Your task to perform on an android device: toggle notification dots Image 0: 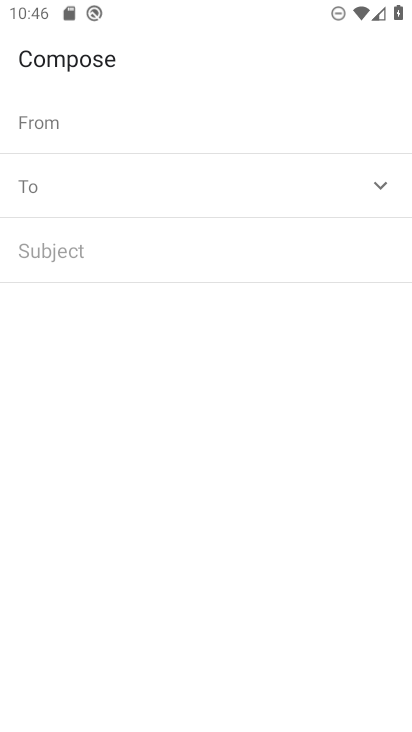
Step 0: drag from (343, 623) to (348, 204)
Your task to perform on an android device: toggle notification dots Image 1: 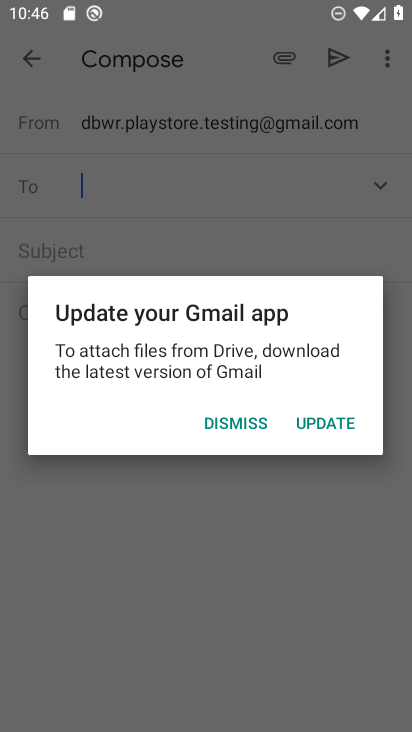
Step 1: press home button
Your task to perform on an android device: toggle notification dots Image 2: 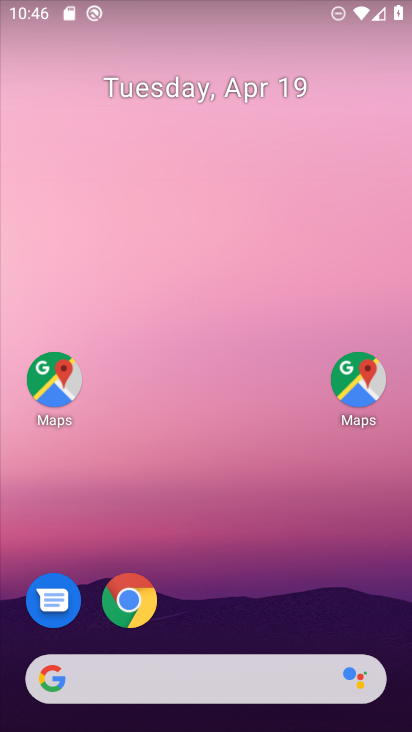
Step 2: drag from (319, 640) to (396, 44)
Your task to perform on an android device: toggle notification dots Image 3: 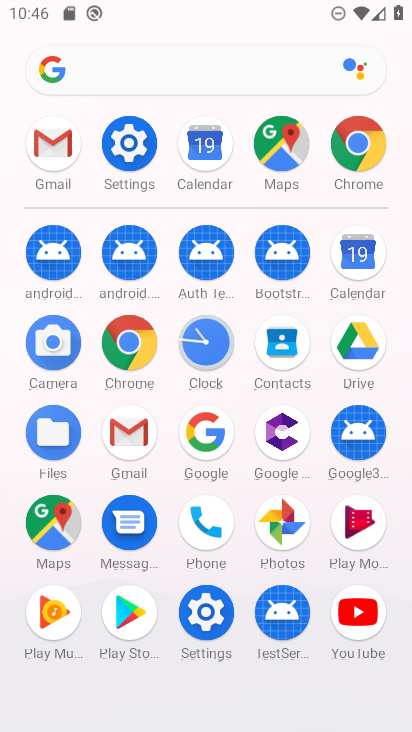
Step 3: click (126, 137)
Your task to perform on an android device: toggle notification dots Image 4: 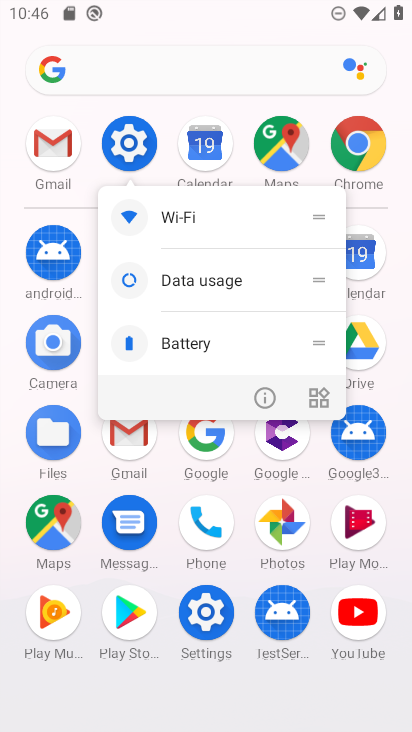
Step 4: click (217, 624)
Your task to perform on an android device: toggle notification dots Image 5: 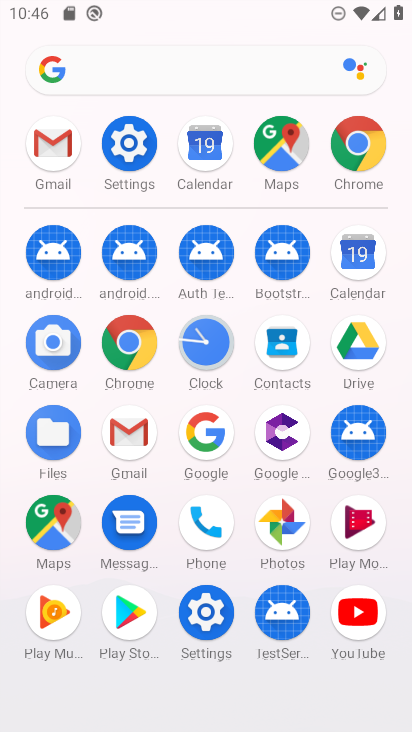
Step 5: click (200, 607)
Your task to perform on an android device: toggle notification dots Image 6: 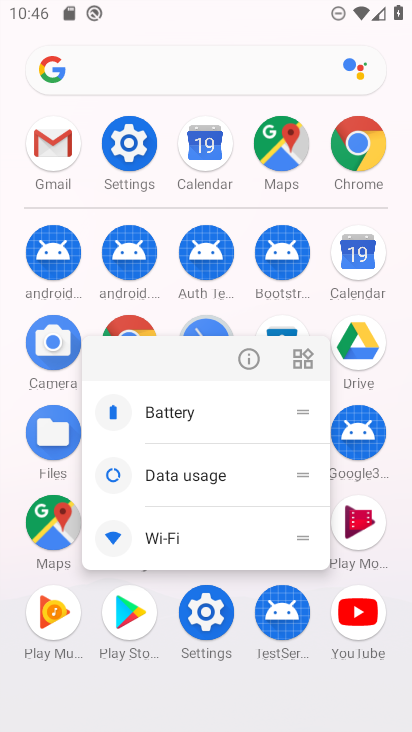
Step 6: click (200, 607)
Your task to perform on an android device: toggle notification dots Image 7: 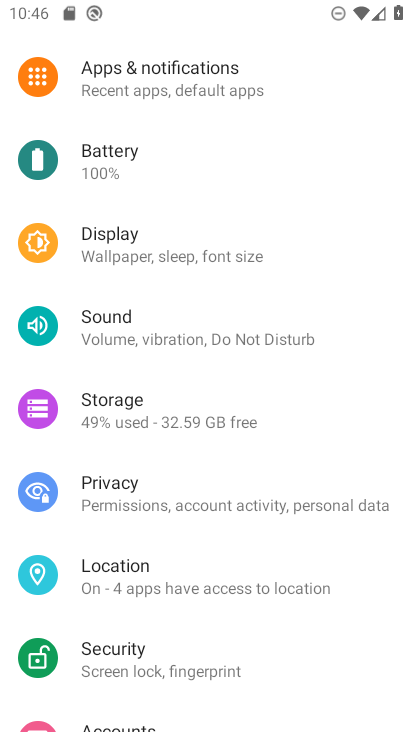
Step 7: click (152, 72)
Your task to perform on an android device: toggle notification dots Image 8: 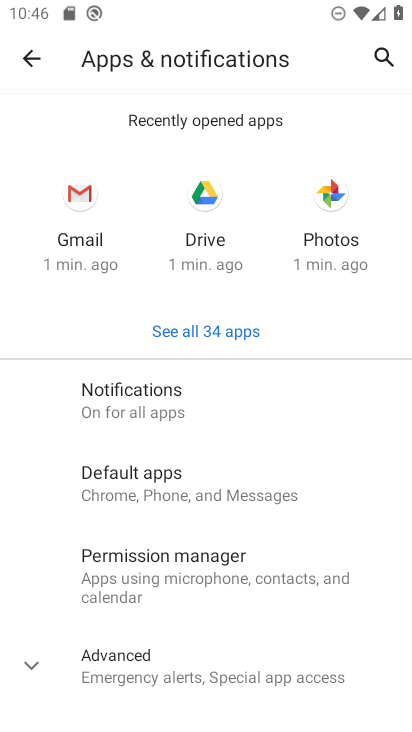
Step 8: click (181, 665)
Your task to perform on an android device: toggle notification dots Image 9: 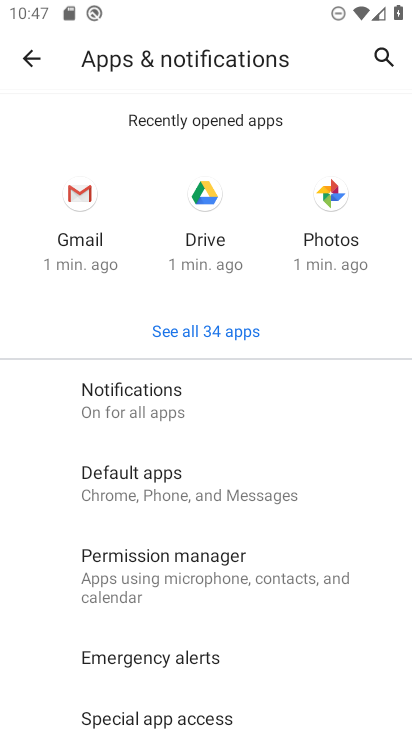
Step 9: click (223, 392)
Your task to perform on an android device: toggle notification dots Image 10: 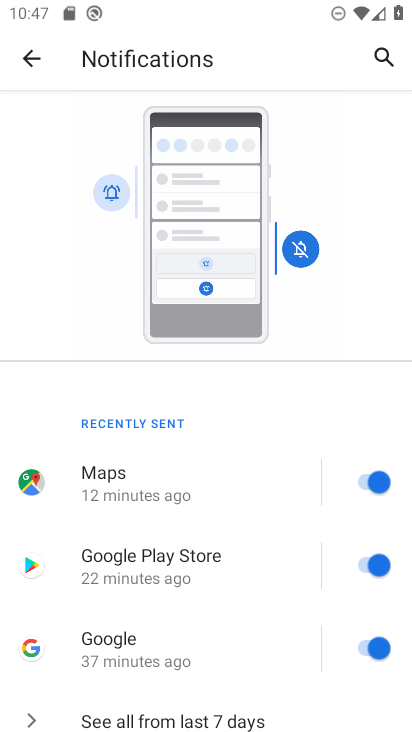
Step 10: click (214, 403)
Your task to perform on an android device: toggle notification dots Image 11: 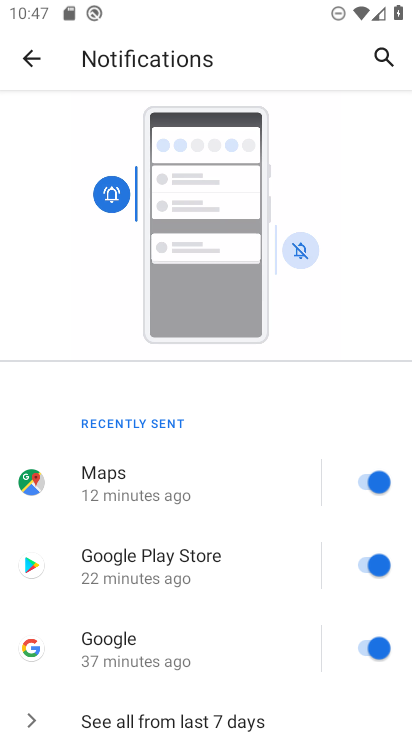
Step 11: drag from (277, 693) to (330, 217)
Your task to perform on an android device: toggle notification dots Image 12: 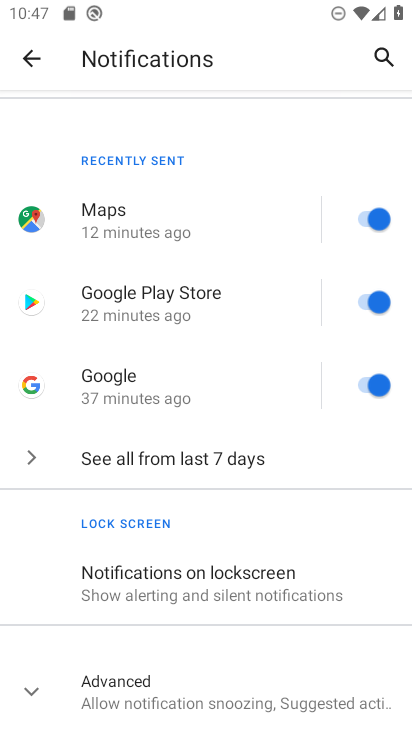
Step 12: click (294, 693)
Your task to perform on an android device: toggle notification dots Image 13: 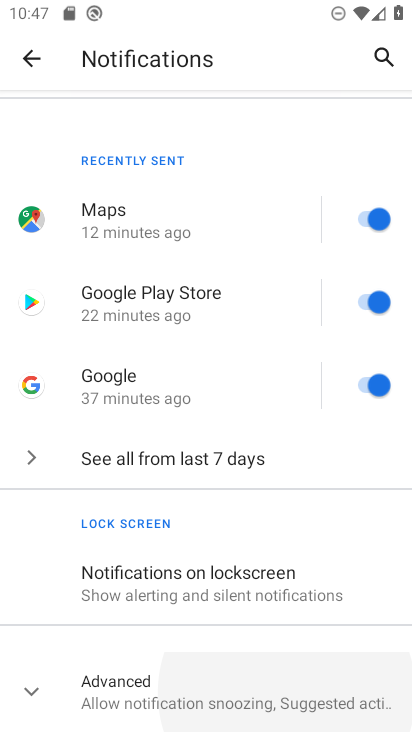
Step 13: click (294, 693)
Your task to perform on an android device: toggle notification dots Image 14: 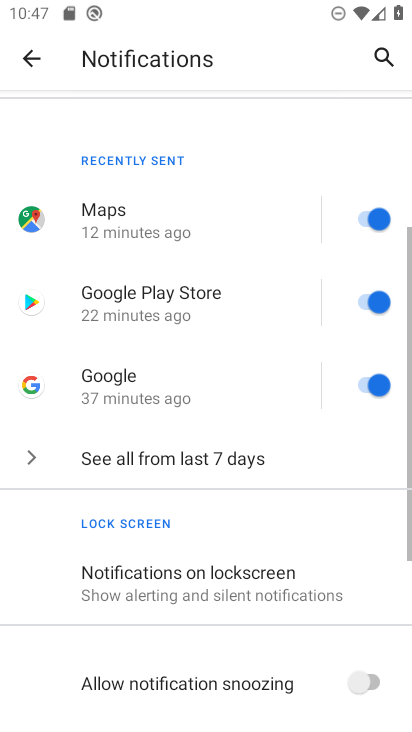
Step 14: drag from (294, 693) to (319, 339)
Your task to perform on an android device: toggle notification dots Image 15: 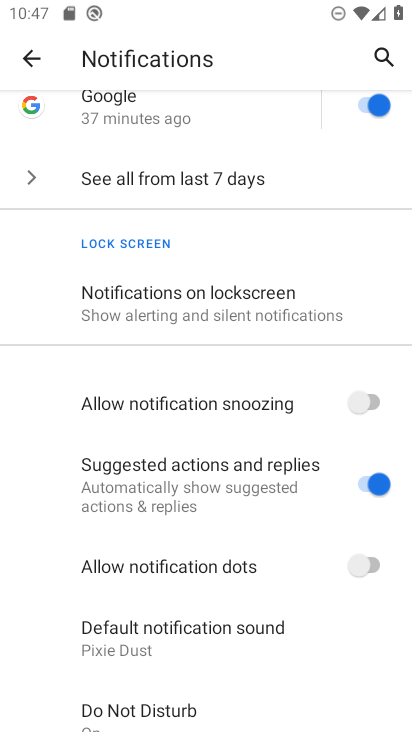
Step 15: click (369, 564)
Your task to perform on an android device: toggle notification dots Image 16: 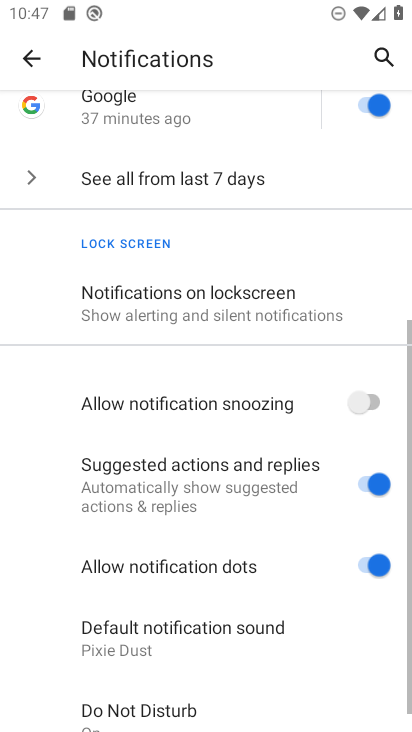
Step 16: task complete